Your task to perform on an android device: Go to internet settings Image 0: 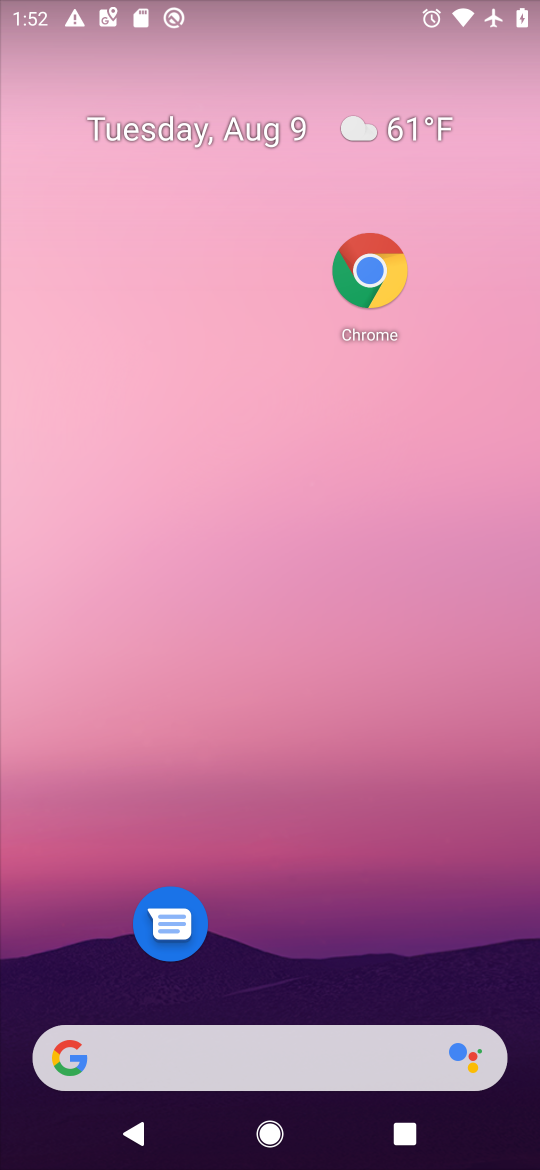
Step 0: drag from (393, 979) to (245, 116)
Your task to perform on an android device: Go to internet settings Image 1: 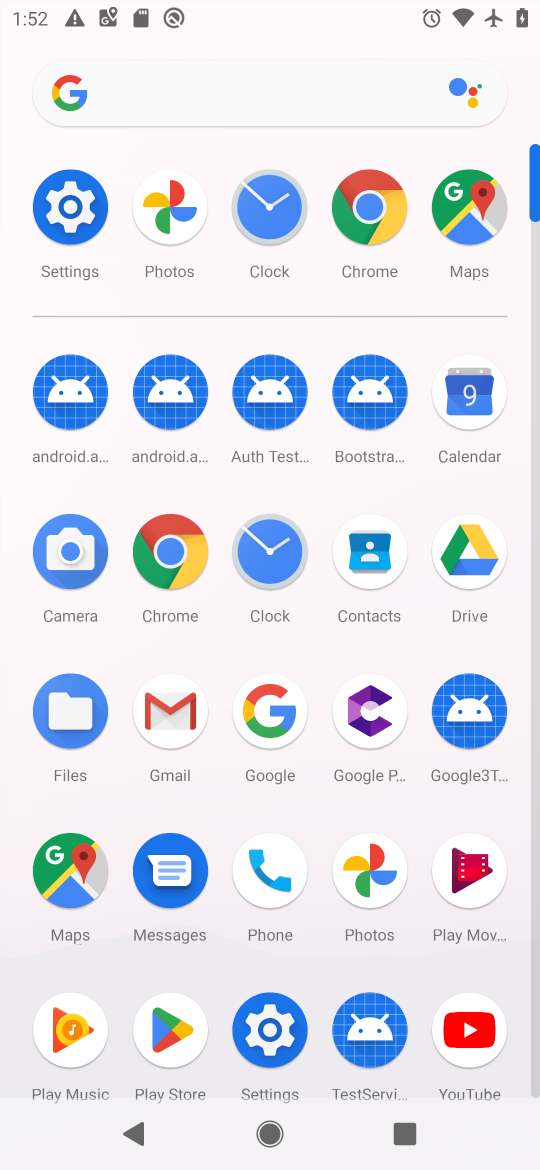
Step 1: click (82, 238)
Your task to perform on an android device: Go to internet settings Image 2: 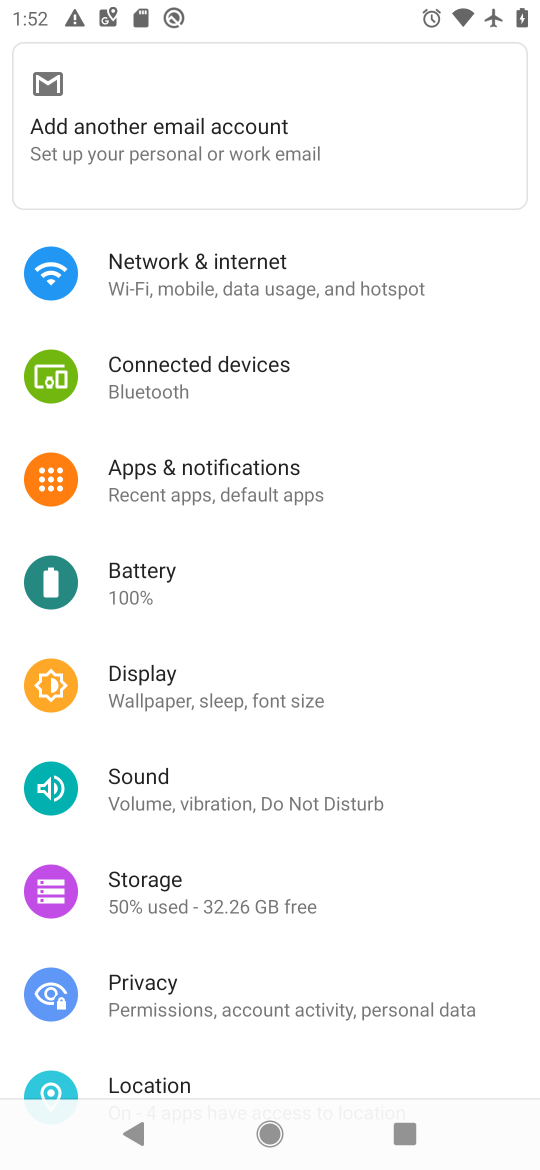
Step 2: click (194, 236)
Your task to perform on an android device: Go to internet settings Image 3: 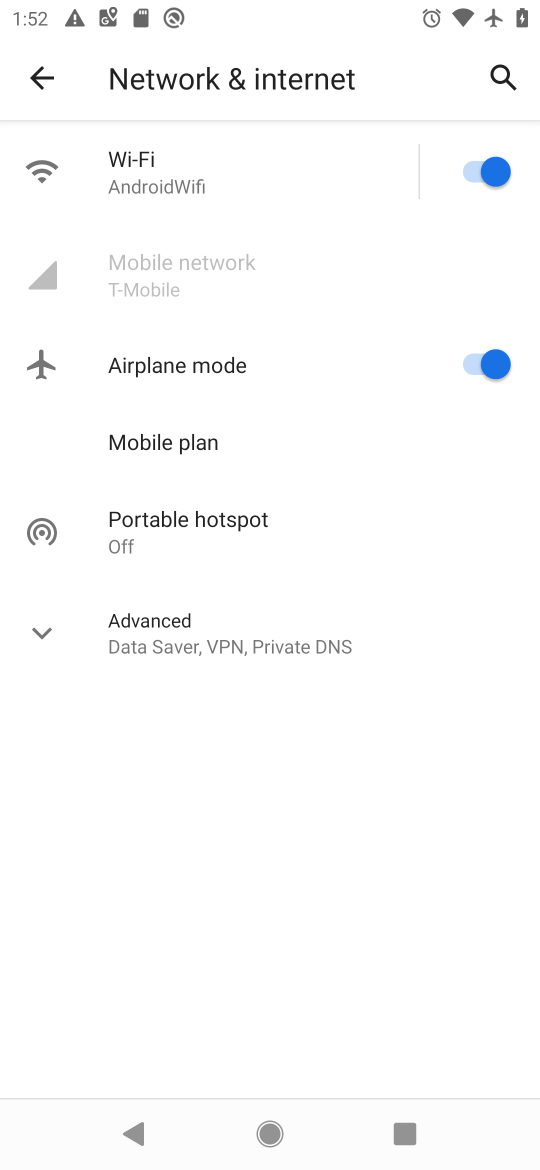
Step 3: task complete